Your task to perform on an android device: Is it going to rain today? Image 0: 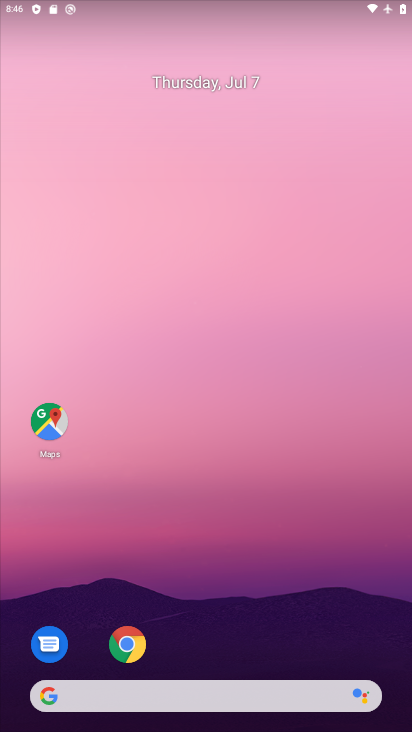
Step 0: drag from (259, 381) to (255, 308)
Your task to perform on an android device: Is it going to rain today? Image 1: 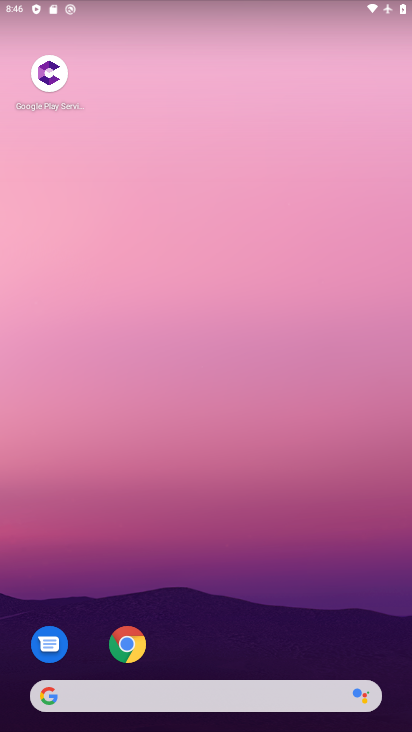
Step 1: drag from (235, 662) to (177, 16)
Your task to perform on an android device: Is it going to rain today? Image 2: 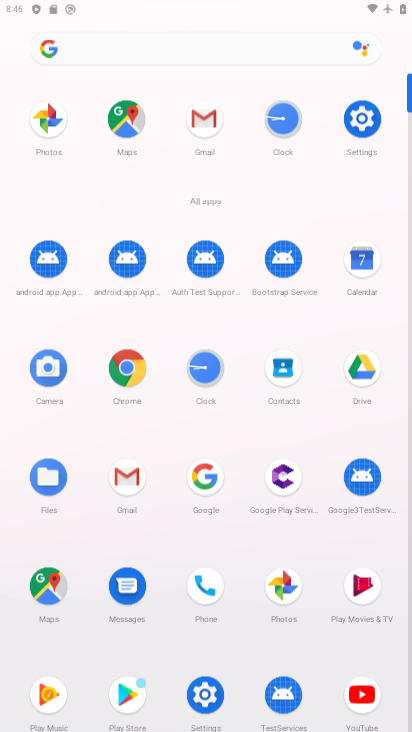
Step 2: drag from (139, 359) to (102, 22)
Your task to perform on an android device: Is it going to rain today? Image 3: 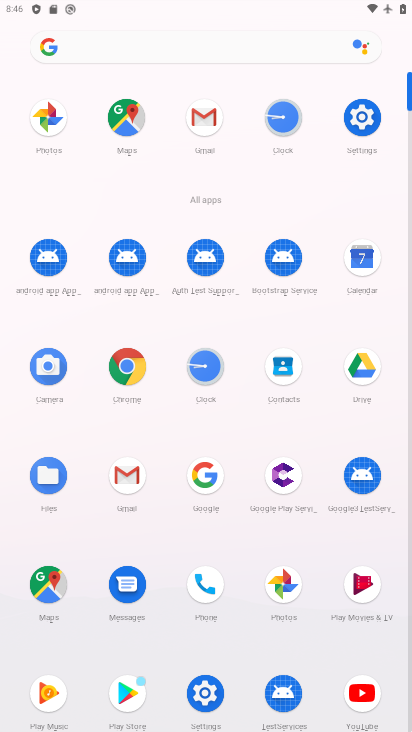
Step 3: click (143, 357)
Your task to perform on an android device: Is it going to rain today? Image 4: 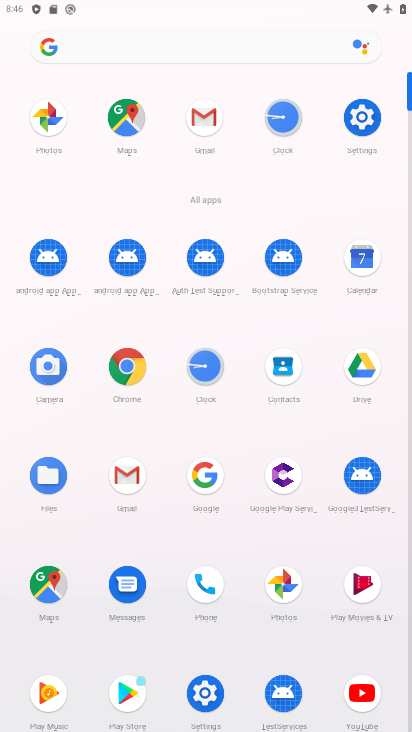
Step 4: click (138, 361)
Your task to perform on an android device: Is it going to rain today? Image 5: 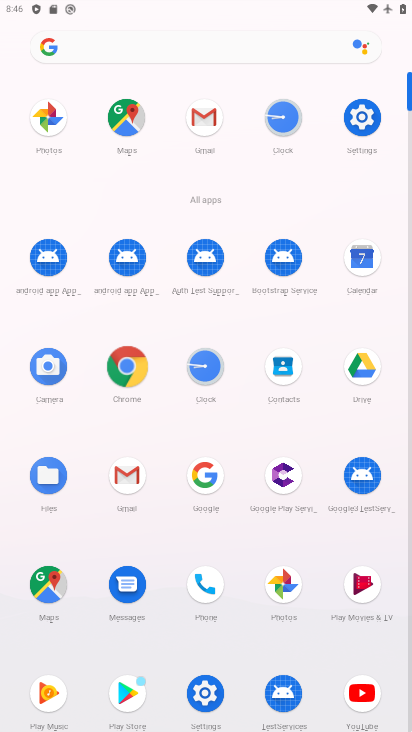
Step 5: click (135, 362)
Your task to perform on an android device: Is it going to rain today? Image 6: 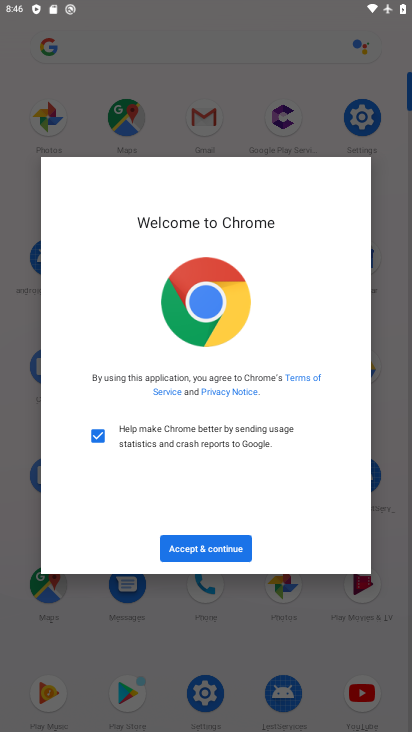
Step 6: click (178, 547)
Your task to perform on an android device: Is it going to rain today? Image 7: 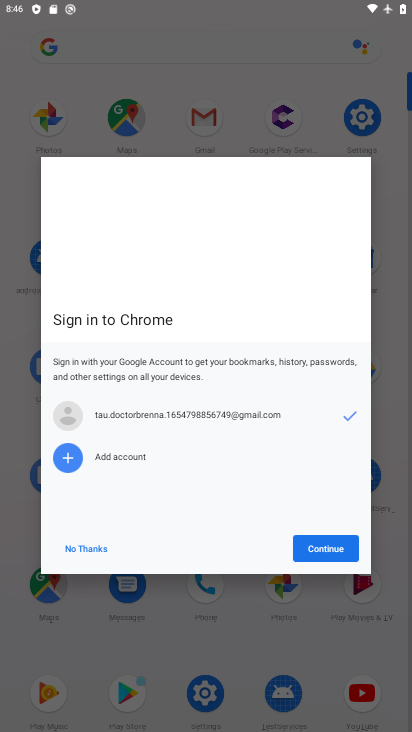
Step 7: click (316, 551)
Your task to perform on an android device: Is it going to rain today? Image 8: 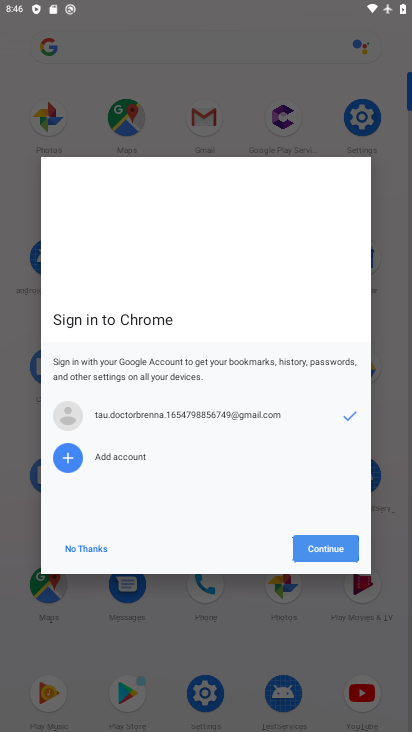
Step 8: click (316, 551)
Your task to perform on an android device: Is it going to rain today? Image 9: 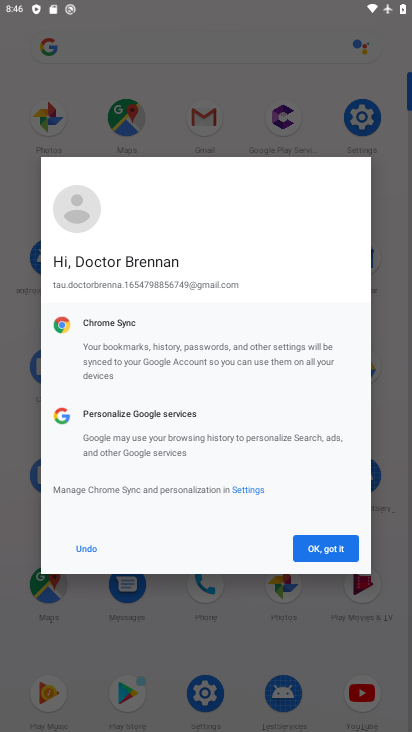
Step 9: click (332, 540)
Your task to perform on an android device: Is it going to rain today? Image 10: 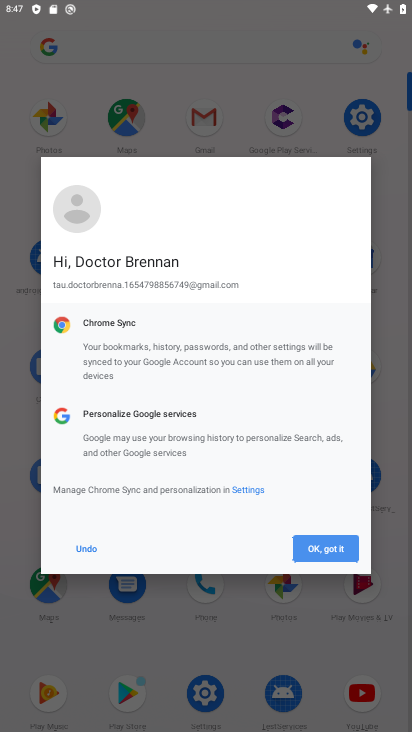
Step 10: click (332, 533)
Your task to perform on an android device: Is it going to rain today? Image 11: 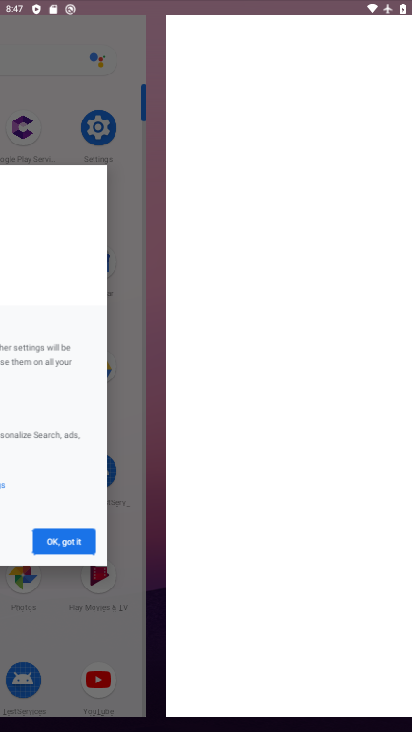
Step 11: click (332, 535)
Your task to perform on an android device: Is it going to rain today? Image 12: 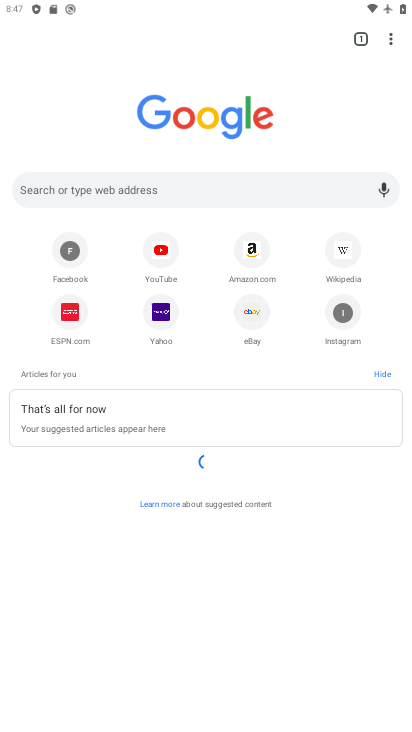
Step 12: click (80, 189)
Your task to perform on an android device: Is it going to rain today? Image 13: 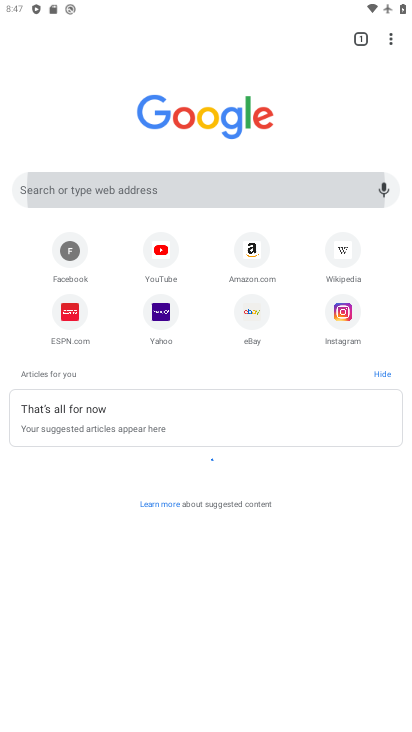
Step 13: click (80, 189)
Your task to perform on an android device: Is it going to rain today? Image 14: 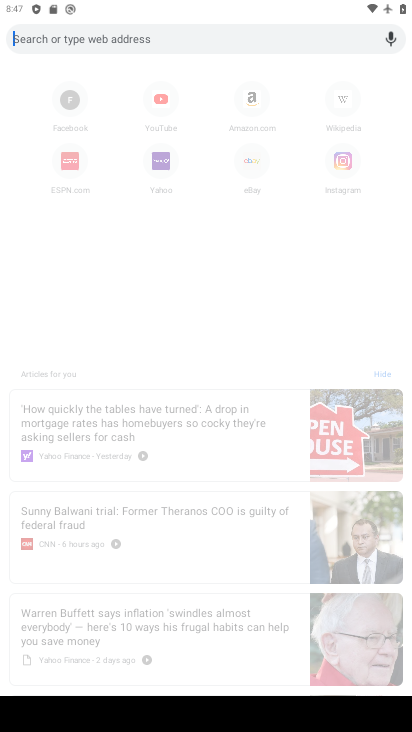
Step 14: type "is it going to rain today?"
Your task to perform on an android device: Is it going to rain today? Image 15: 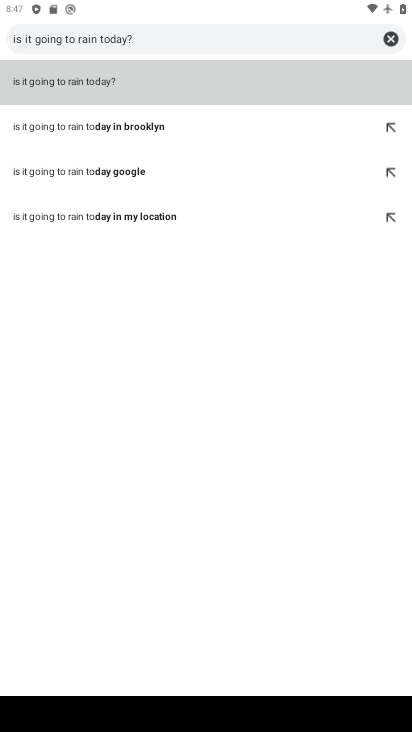
Step 15: click (91, 81)
Your task to perform on an android device: Is it going to rain today? Image 16: 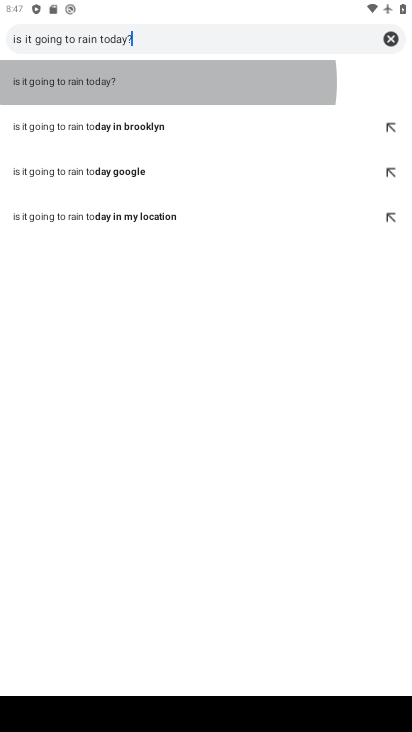
Step 16: click (90, 82)
Your task to perform on an android device: Is it going to rain today? Image 17: 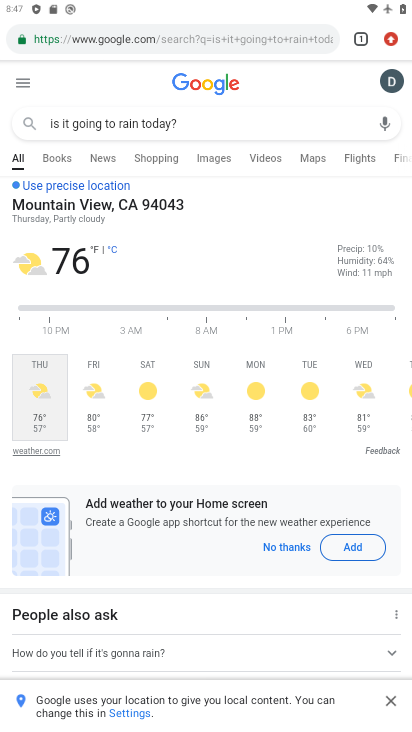
Step 17: task complete